Your task to perform on an android device: Open sound settings Image 0: 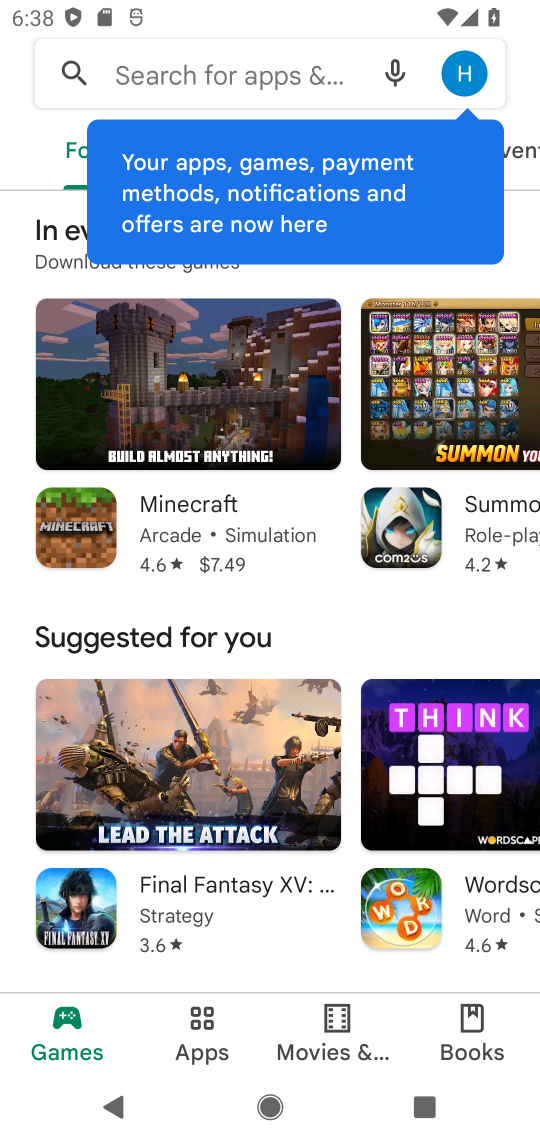
Step 0: press home button
Your task to perform on an android device: Open sound settings Image 1: 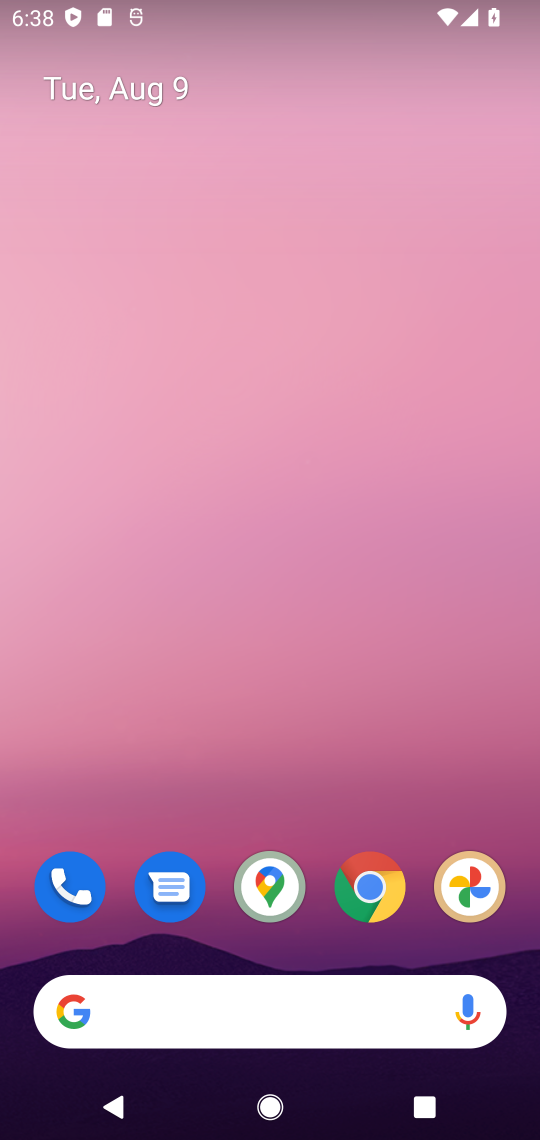
Step 1: drag from (324, 690) to (328, 0)
Your task to perform on an android device: Open sound settings Image 2: 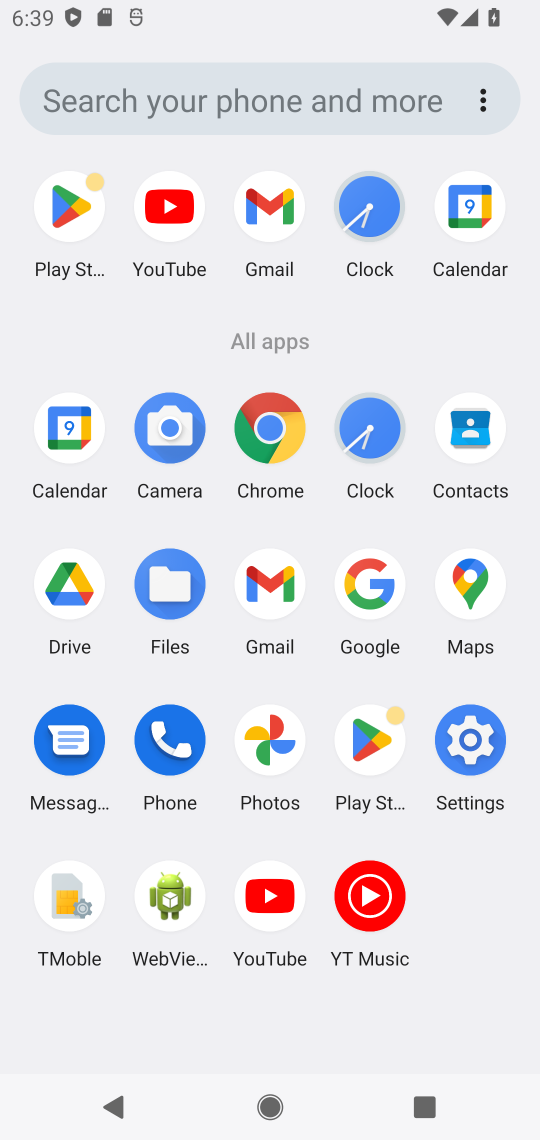
Step 2: click (463, 736)
Your task to perform on an android device: Open sound settings Image 3: 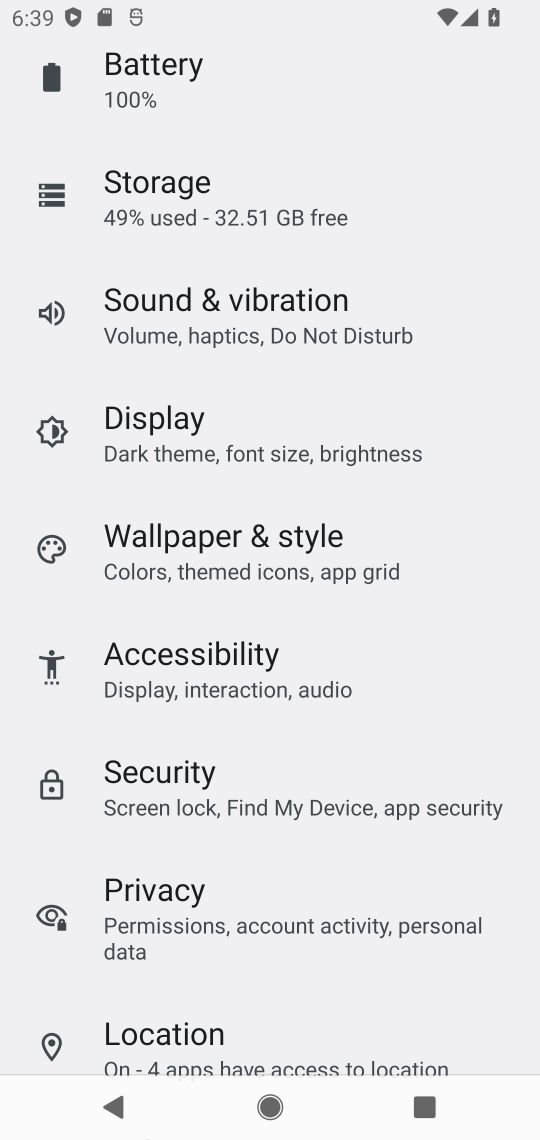
Step 3: click (239, 314)
Your task to perform on an android device: Open sound settings Image 4: 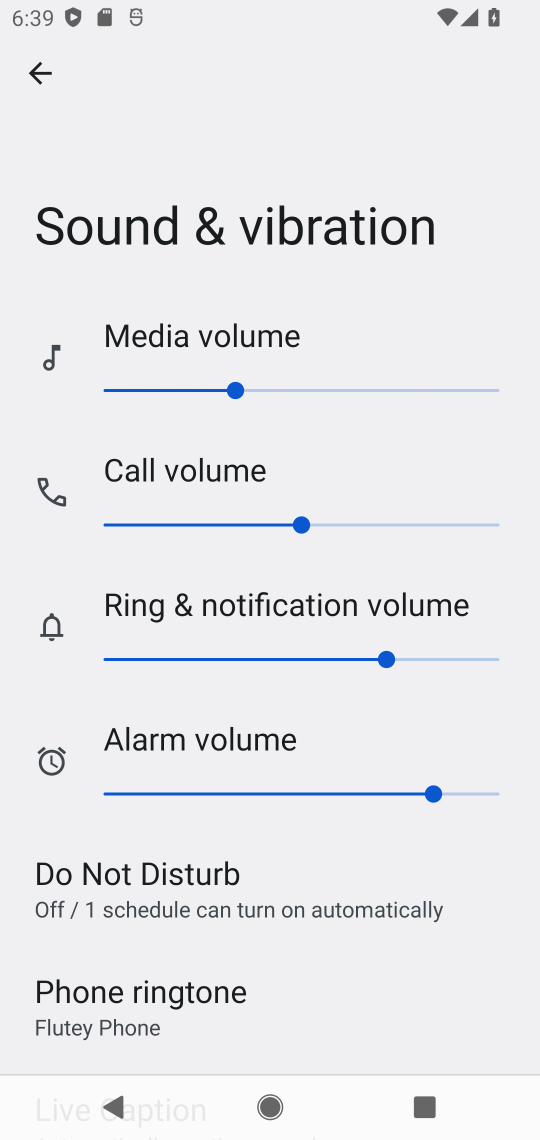
Step 4: task complete